Your task to perform on an android device: turn off translation in the chrome app Image 0: 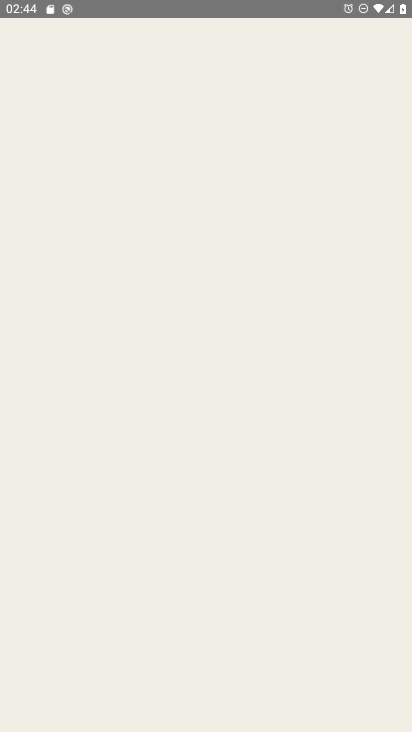
Step 0: press home button
Your task to perform on an android device: turn off translation in the chrome app Image 1: 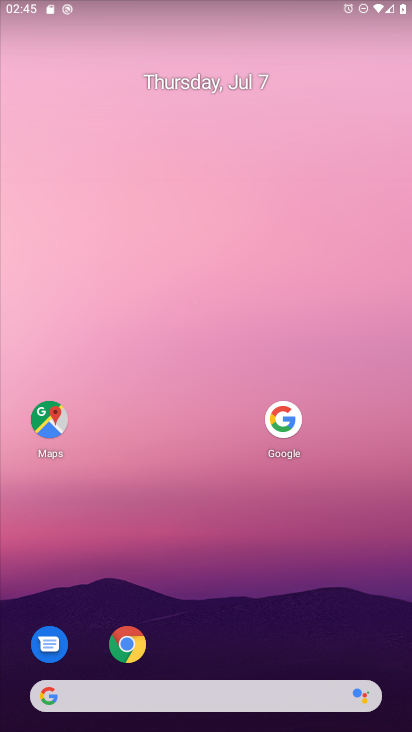
Step 1: click (128, 650)
Your task to perform on an android device: turn off translation in the chrome app Image 2: 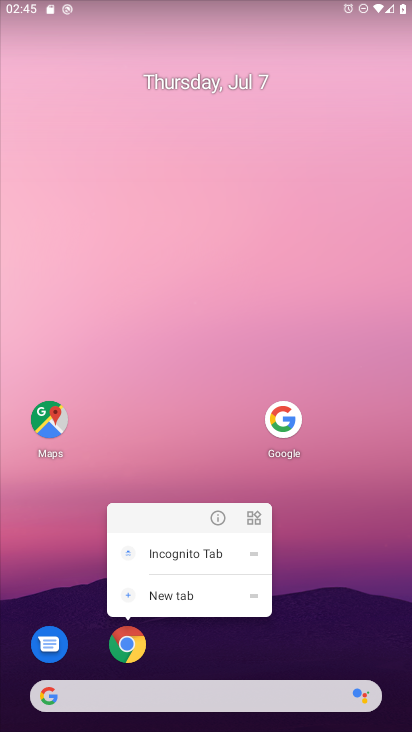
Step 2: click (128, 641)
Your task to perform on an android device: turn off translation in the chrome app Image 3: 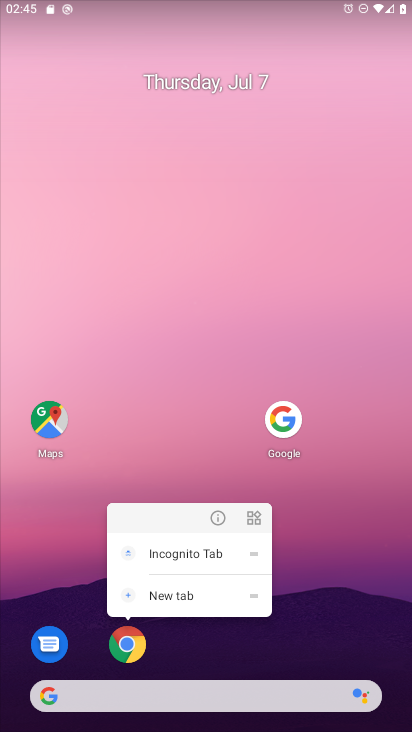
Step 3: click (128, 647)
Your task to perform on an android device: turn off translation in the chrome app Image 4: 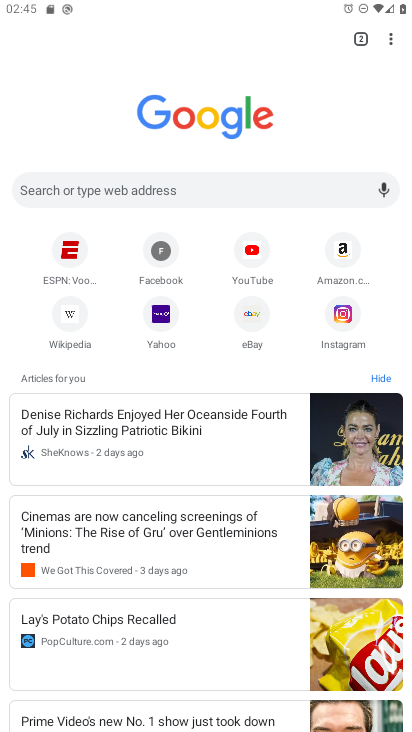
Step 4: drag from (390, 38) to (248, 332)
Your task to perform on an android device: turn off translation in the chrome app Image 5: 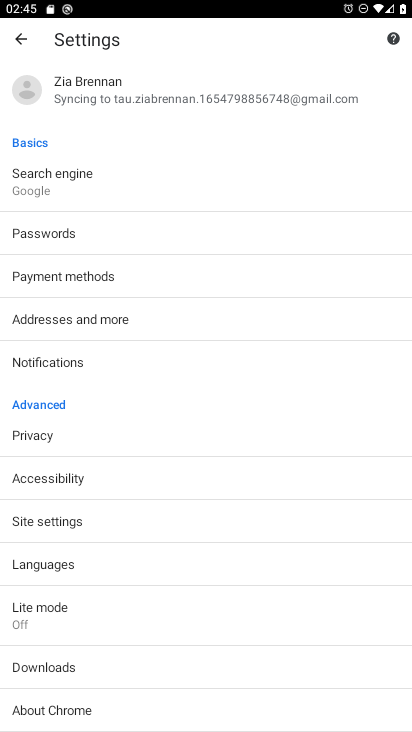
Step 5: click (55, 567)
Your task to perform on an android device: turn off translation in the chrome app Image 6: 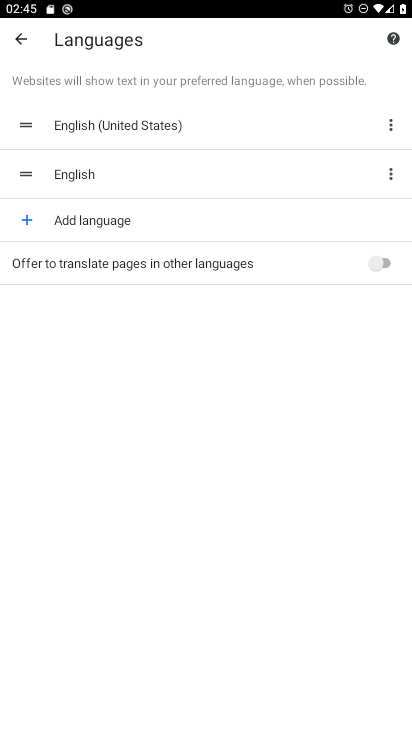
Step 6: task complete